Your task to perform on an android device: Open the web browser Image 0: 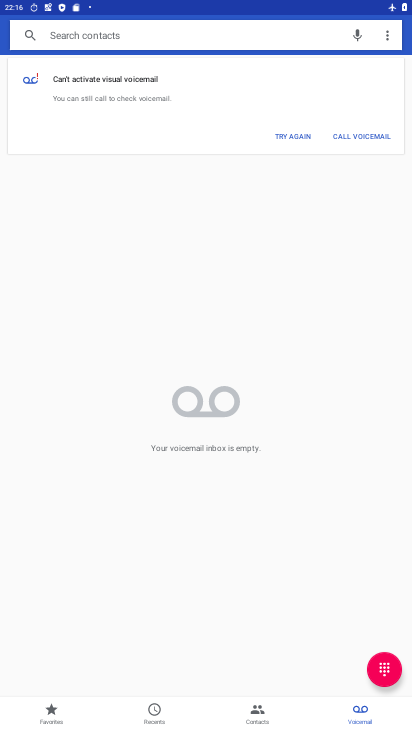
Step 0: press home button
Your task to perform on an android device: Open the web browser Image 1: 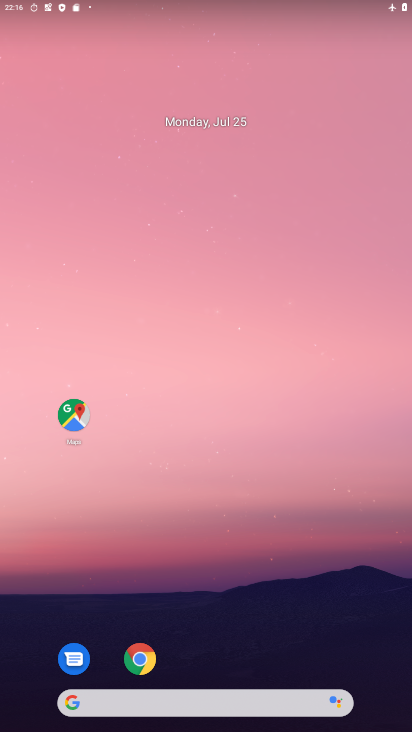
Step 1: click (148, 662)
Your task to perform on an android device: Open the web browser Image 2: 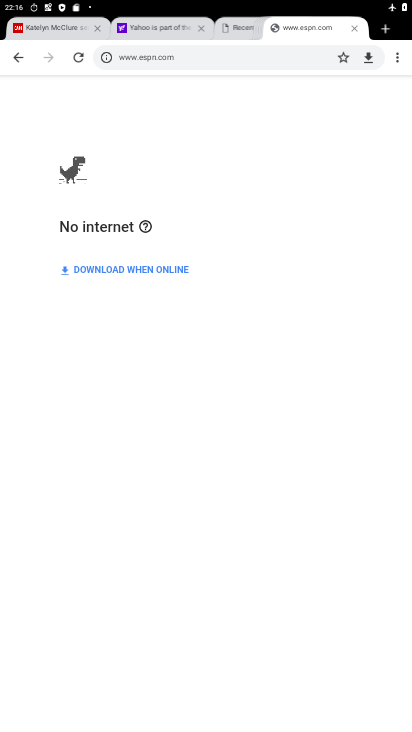
Step 2: task complete